Your task to perform on an android device: turn on the 12-hour format for clock Image 0: 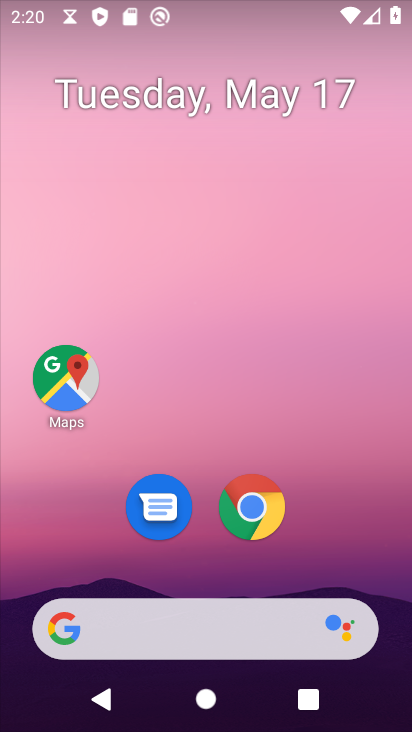
Step 0: drag from (200, 592) to (259, 86)
Your task to perform on an android device: turn on the 12-hour format for clock Image 1: 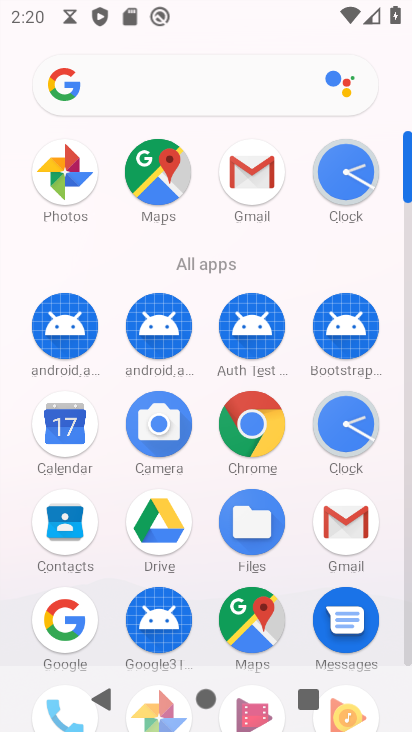
Step 1: click (349, 452)
Your task to perform on an android device: turn on the 12-hour format for clock Image 2: 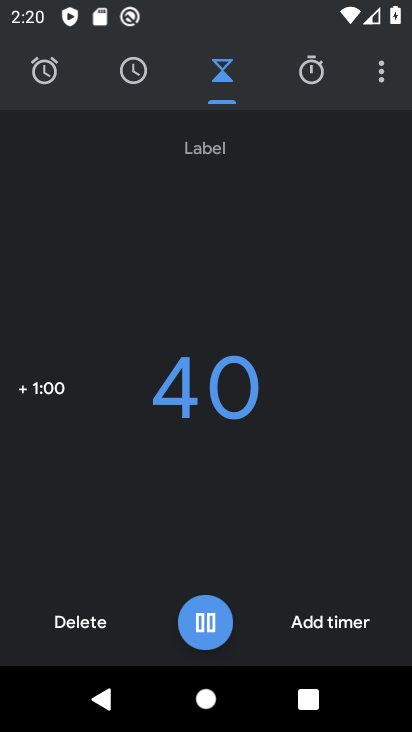
Step 2: click (379, 52)
Your task to perform on an android device: turn on the 12-hour format for clock Image 3: 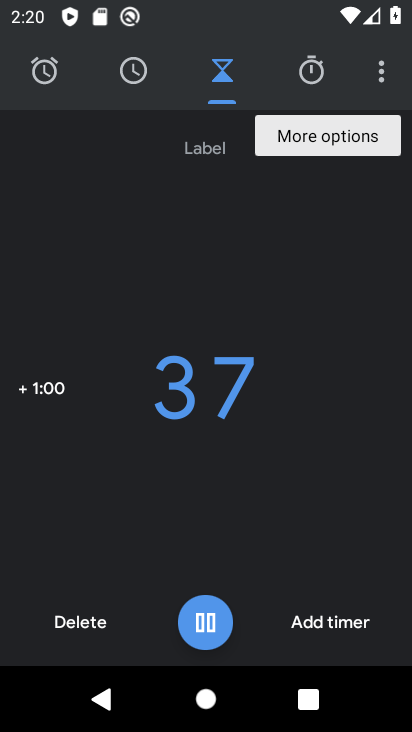
Step 3: click (377, 70)
Your task to perform on an android device: turn on the 12-hour format for clock Image 4: 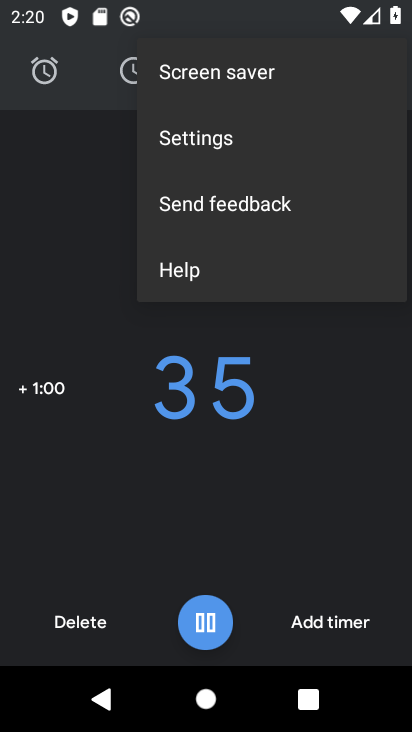
Step 4: click (330, 149)
Your task to perform on an android device: turn on the 12-hour format for clock Image 5: 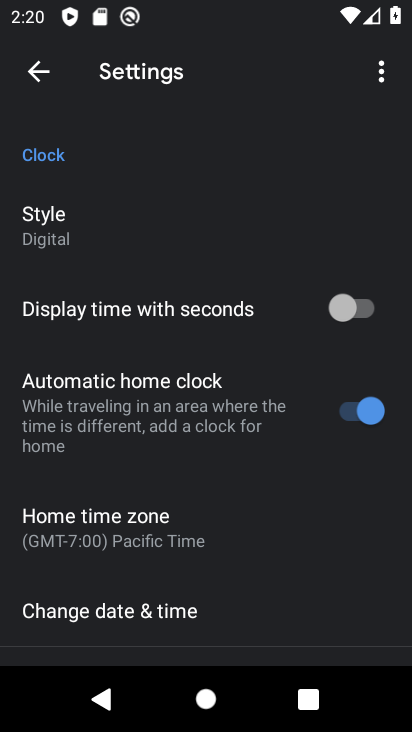
Step 5: drag from (190, 571) to (292, 184)
Your task to perform on an android device: turn on the 12-hour format for clock Image 6: 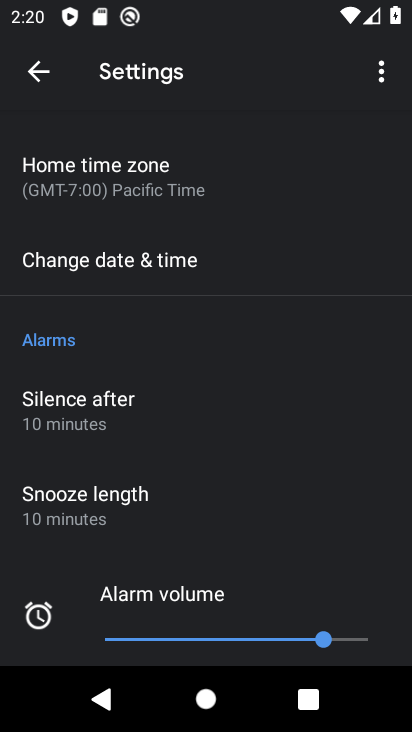
Step 6: drag from (237, 508) to (334, 153)
Your task to perform on an android device: turn on the 12-hour format for clock Image 7: 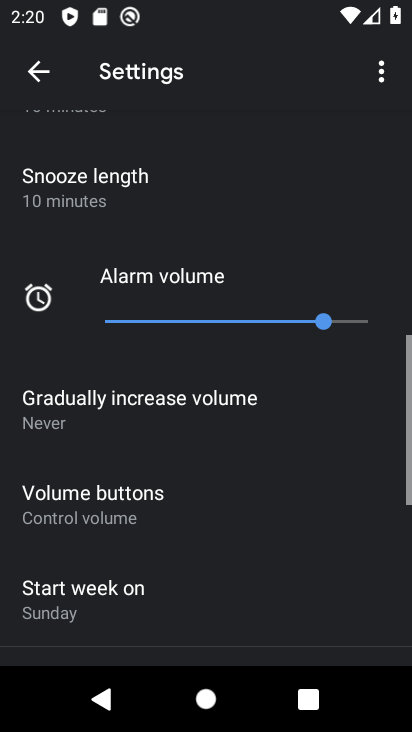
Step 7: drag from (224, 537) to (286, 184)
Your task to perform on an android device: turn on the 12-hour format for clock Image 8: 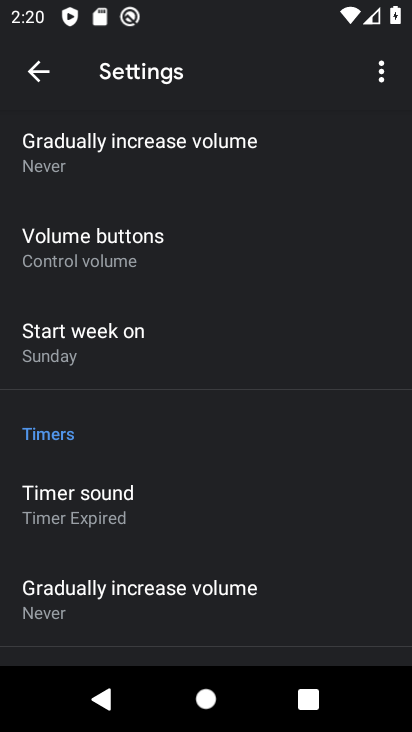
Step 8: drag from (144, 601) to (181, 589)
Your task to perform on an android device: turn on the 12-hour format for clock Image 9: 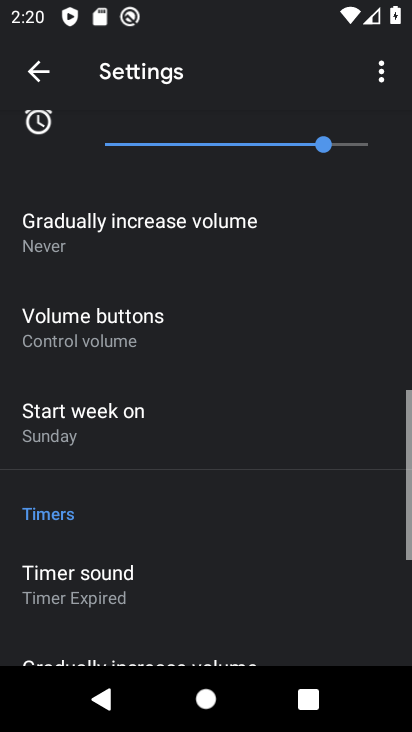
Step 9: drag from (177, 173) to (159, 600)
Your task to perform on an android device: turn on the 12-hour format for clock Image 10: 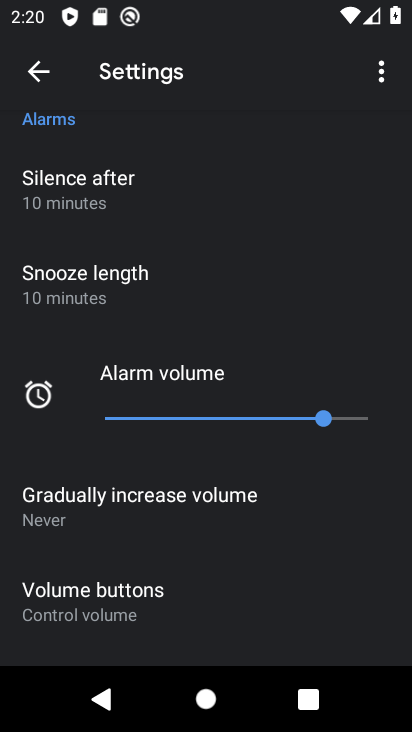
Step 10: drag from (189, 158) to (145, 668)
Your task to perform on an android device: turn on the 12-hour format for clock Image 11: 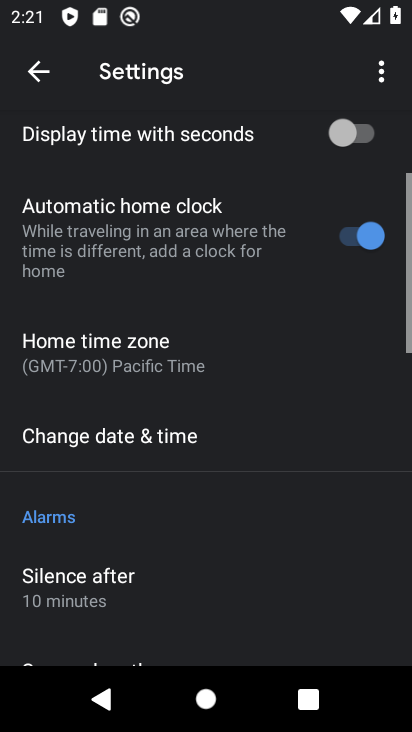
Step 11: click (166, 434)
Your task to perform on an android device: turn on the 12-hour format for clock Image 12: 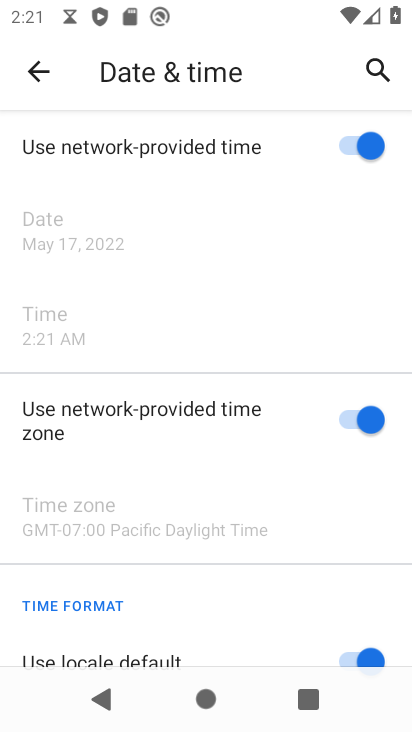
Step 12: task complete